Your task to perform on an android device: turn on notifications settings in the gmail app Image 0: 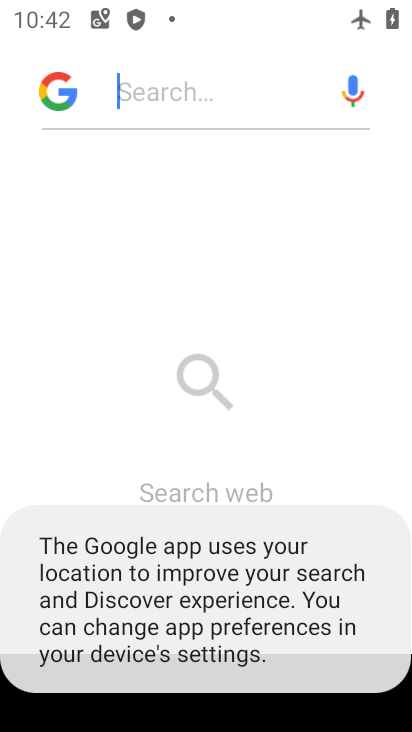
Step 0: press home button
Your task to perform on an android device: turn on notifications settings in the gmail app Image 1: 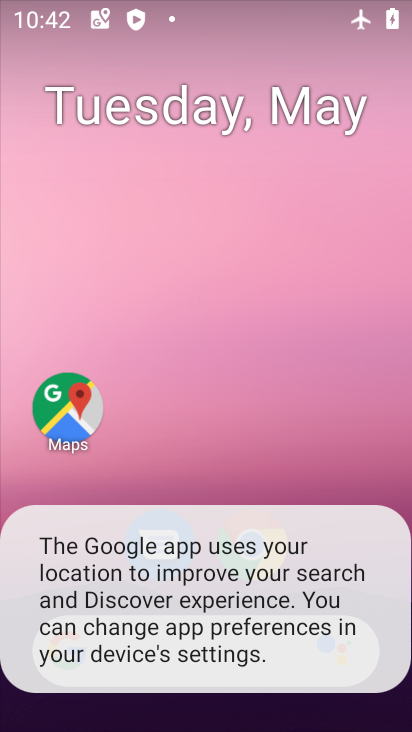
Step 1: click (254, 347)
Your task to perform on an android device: turn on notifications settings in the gmail app Image 2: 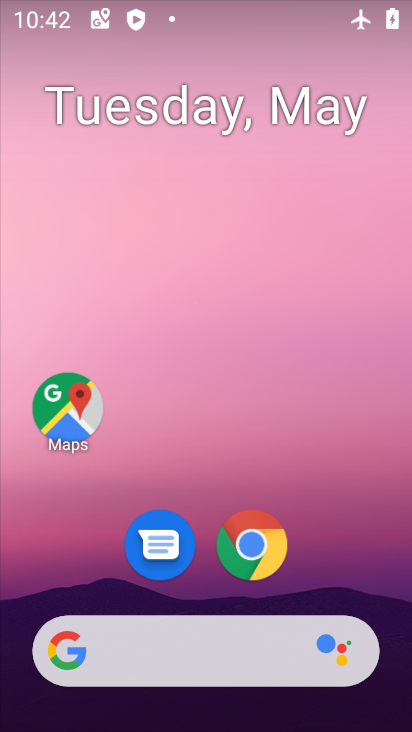
Step 2: drag from (212, 611) to (315, 84)
Your task to perform on an android device: turn on notifications settings in the gmail app Image 3: 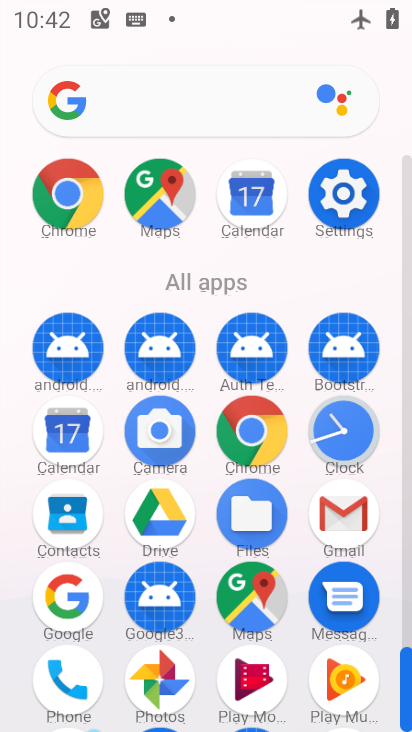
Step 3: click (349, 530)
Your task to perform on an android device: turn on notifications settings in the gmail app Image 4: 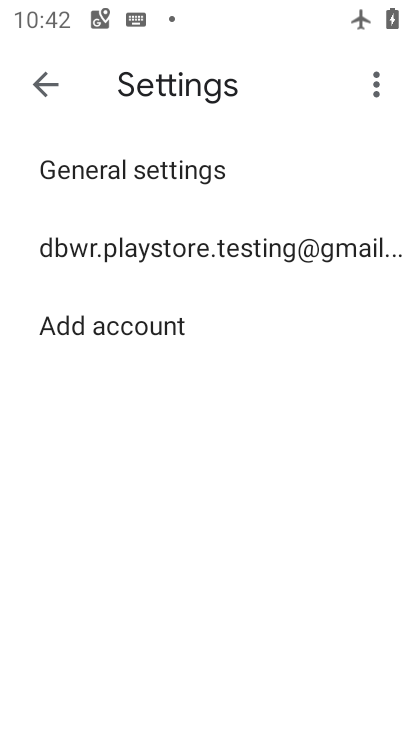
Step 4: click (103, 183)
Your task to perform on an android device: turn on notifications settings in the gmail app Image 5: 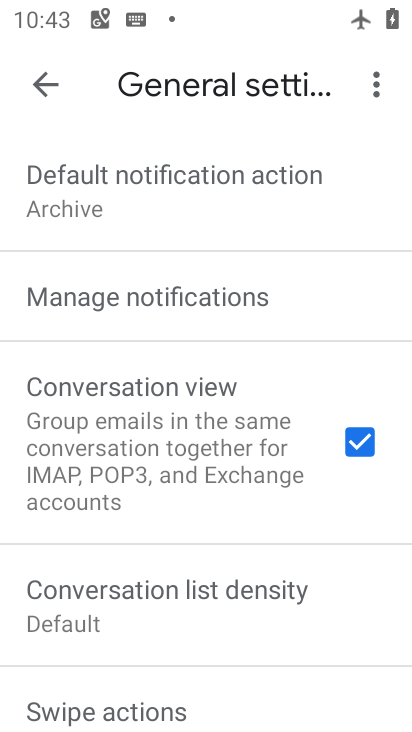
Step 5: click (210, 300)
Your task to perform on an android device: turn on notifications settings in the gmail app Image 6: 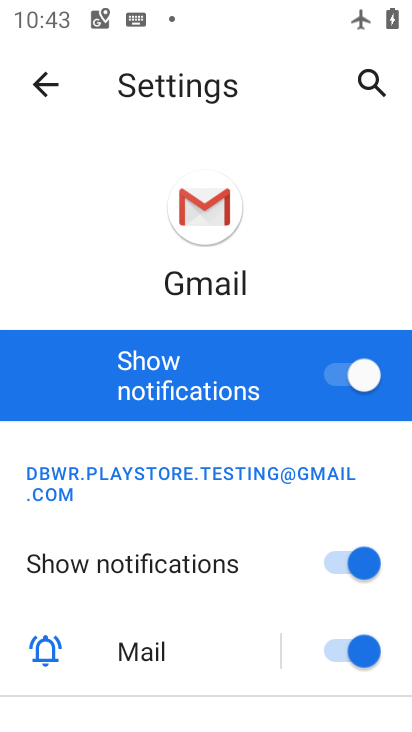
Step 6: task complete